Your task to perform on an android device: Search for Mexican restaurants on Maps Image 0: 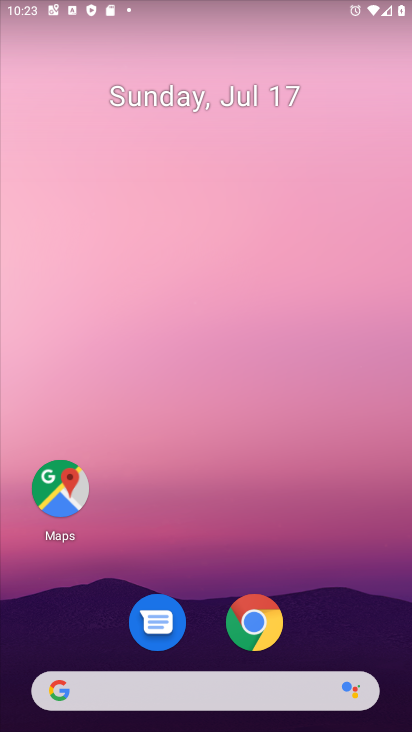
Step 0: click (183, 698)
Your task to perform on an android device: Search for Mexican restaurants on Maps Image 1: 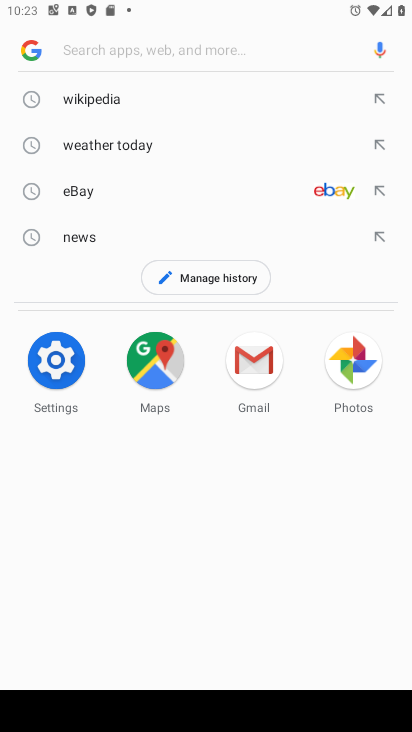
Step 1: type "mexican restaurants "
Your task to perform on an android device: Search for Mexican restaurants on Maps Image 2: 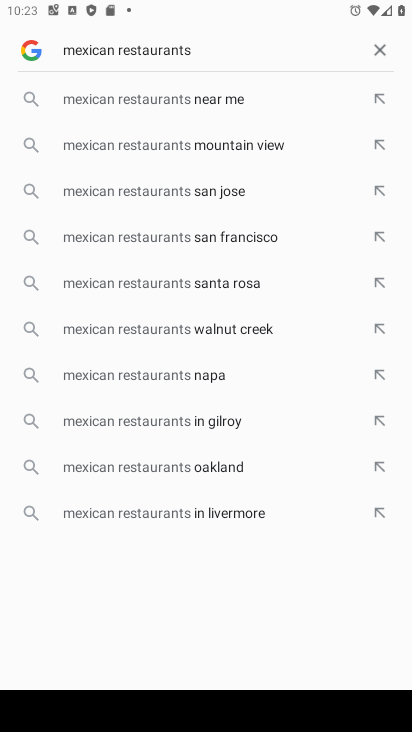
Step 2: press enter
Your task to perform on an android device: Search for Mexican restaurants on Maps Image 3: 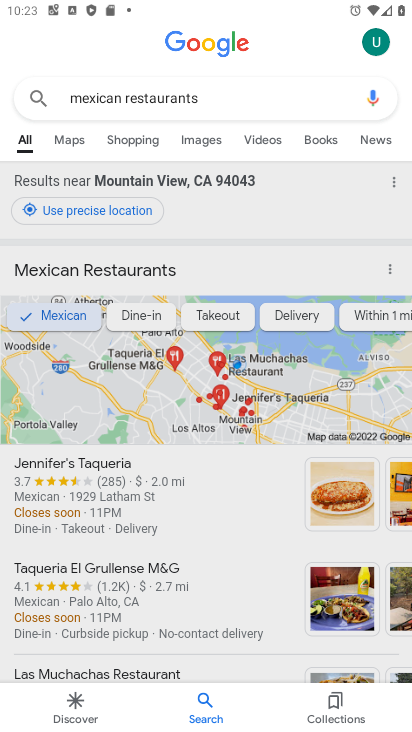
Step 3: task complete